Your task to perform on an android device: stop showing notifications on the lock screen Image 0: 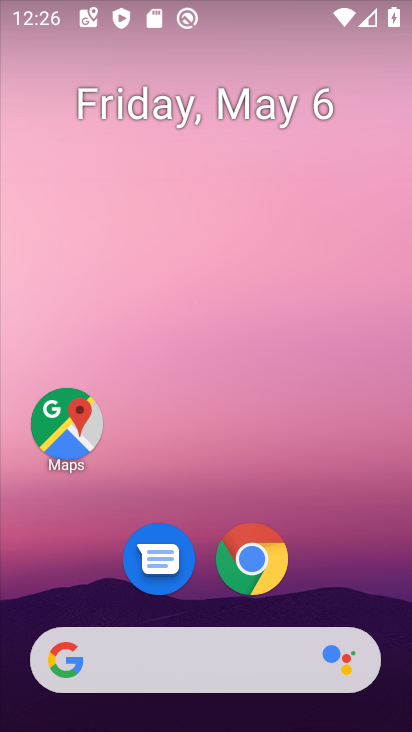
Step 0: drag from (337, 576) to (218, 64)
Your task to perform on an android device: stop showing notifications on the lock screen Image 1: 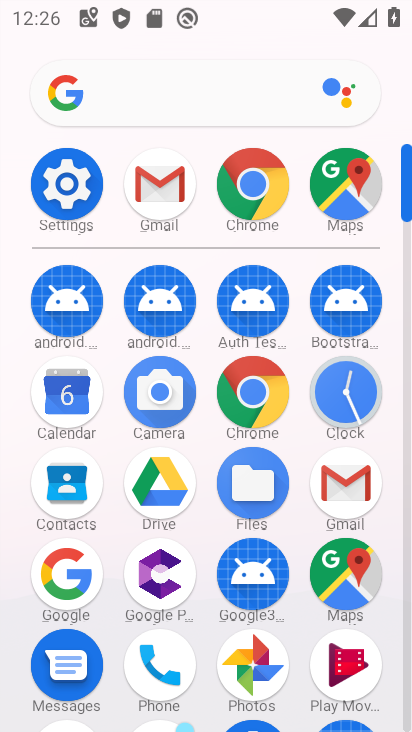
Step 1: click (74, 182)
Your task to perform on an android device: stop showing notifications on the lock screen Image 2: 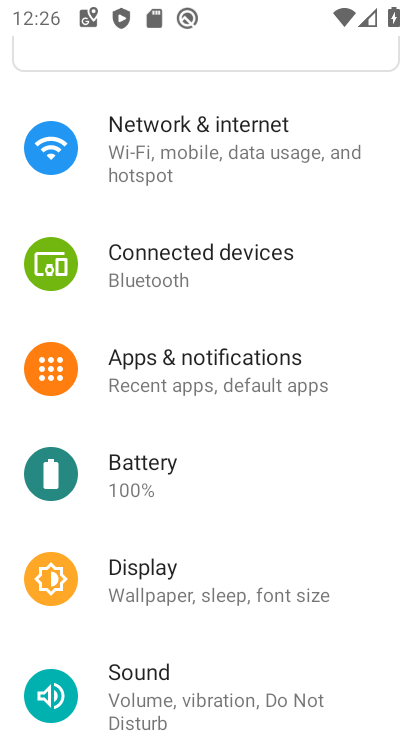
Step 2: click (210, 383)
Your task to perform on an android device: stop showing notifications on the lock screen Image 3: 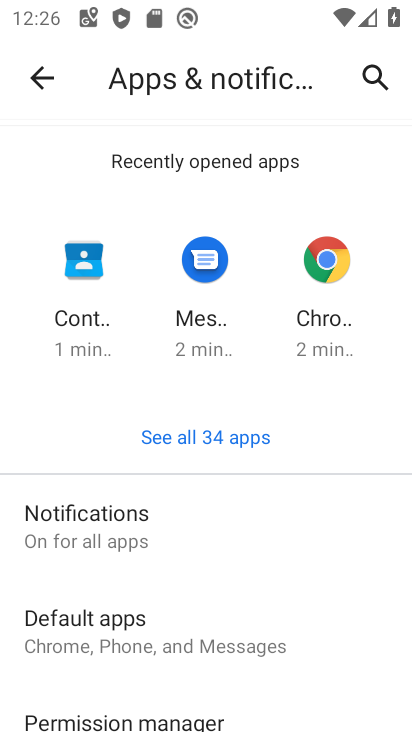
Step 3: drag from (193, 605) to (141, 428)
Your task to perform on an android device: stop showing notifications on the lock screen Image 4: 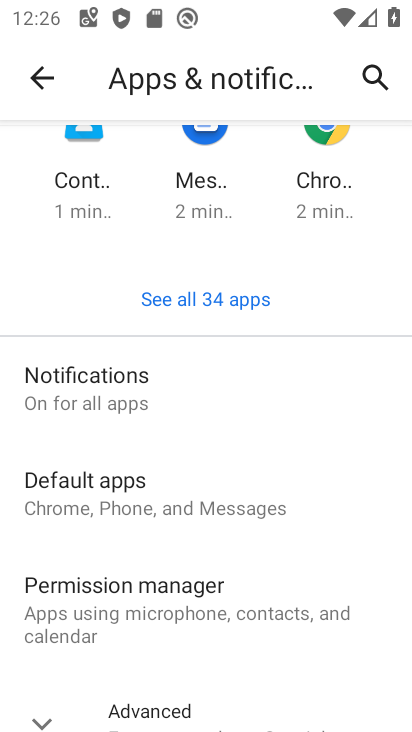
Step 4: drag from (186, 681) to (169, 479)
Your task to perform on an android device: stop showing notifications on the lock screen Image 5: 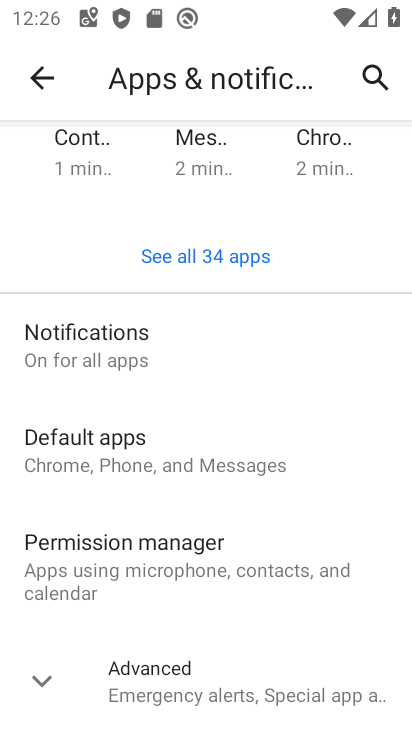
Step 5: click (142, 354)
Your task to perform on an android device: stop showing notifications on the lock screen Image 6: 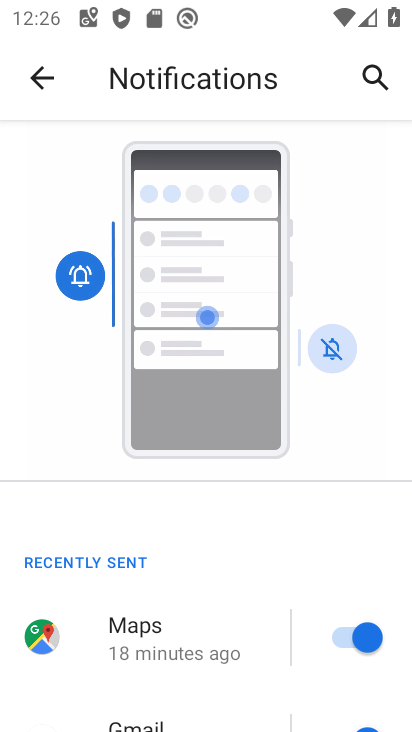
Step 6: drag from (169, 675) to (149, 266)
Your task to perform on an android device: stop showing notifications on the lock screen Image 7: 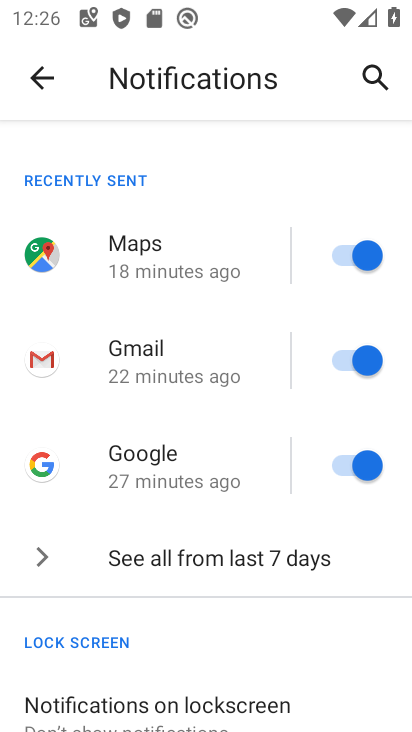
Step 7: drag from (188, 667) to (166, 346)
Your task to perform on an android device: stop showing notifications on the lock screen Image 8: 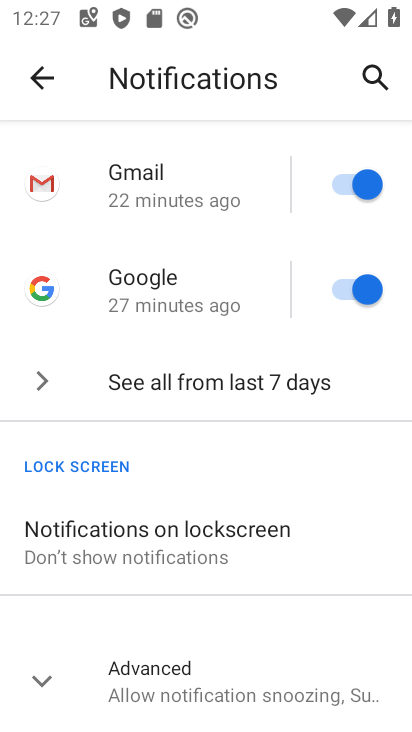
Step 8: click (123, 530)
Your task to perform on an android device: stop showing notifications on the lock screen Image 9: 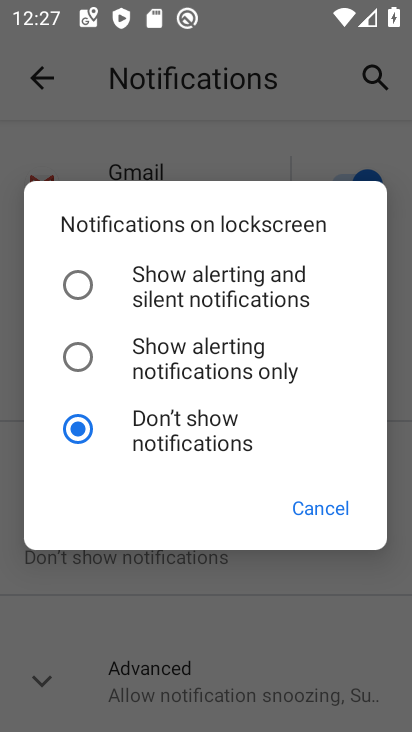
Step 9: click (163, 439)
Your task to perform on an android device: stop showing notifications on the lock screen Image 10: 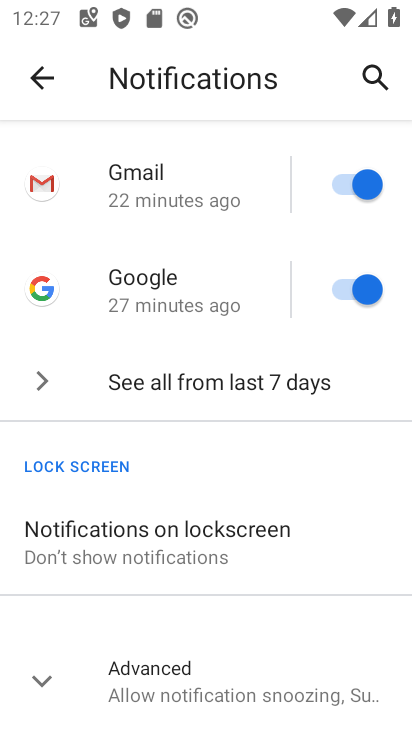
Step 10: task complete